Your task to perform on an android device: Open internet settings Image 0: 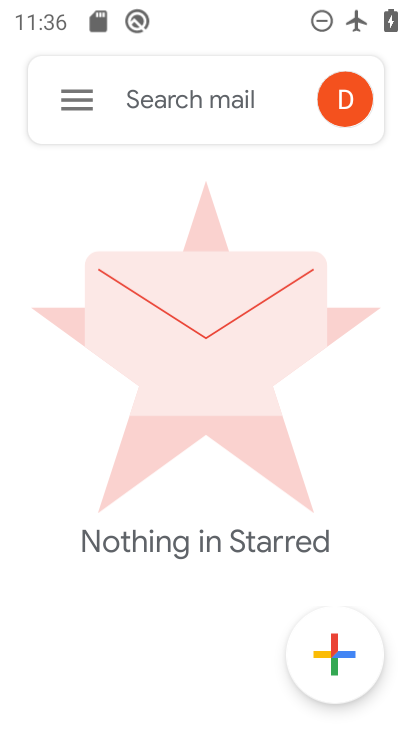
Step 0: press home button
Your task to perform on an android device: Open internet settings Image 1: 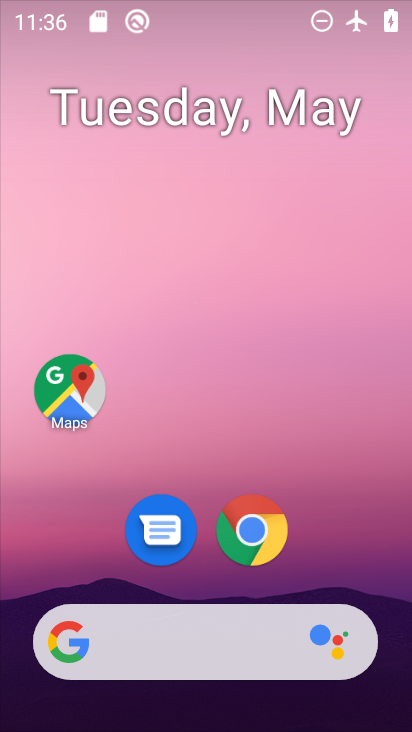
Step 1: drag from (316, 564) to (230, 122)
Your task to perform on an android device: Open internet settings Image 2: 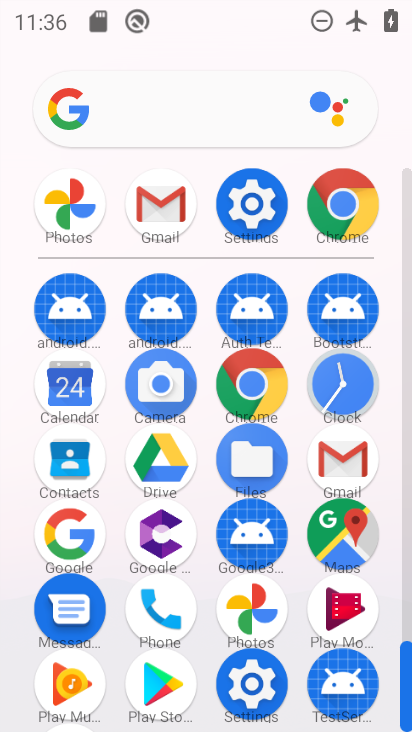
Step 2: click (238, 206)
Your task to perform on an android device: Open internet settings Image 3: 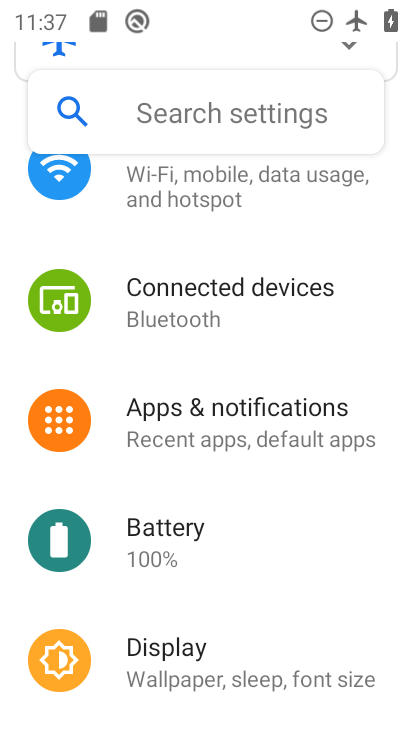
Step 3: drag from (237, 218) to (283, 621)
Your task to perform on an android device: Open internet settings Image 4: 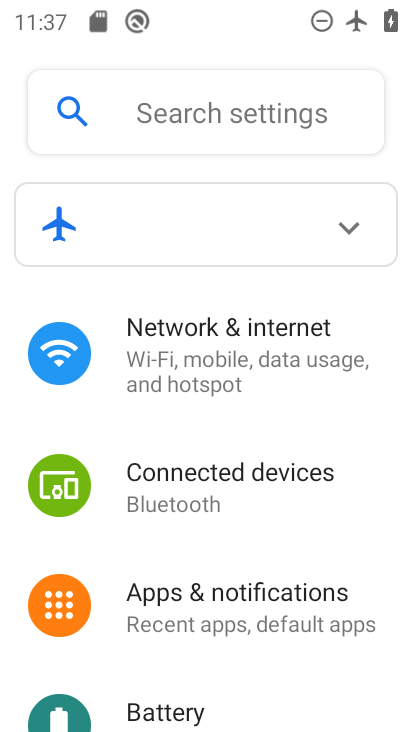
Step 4: click (215, 343)
Your task to perform on an android device: Open internet settings Image 5: 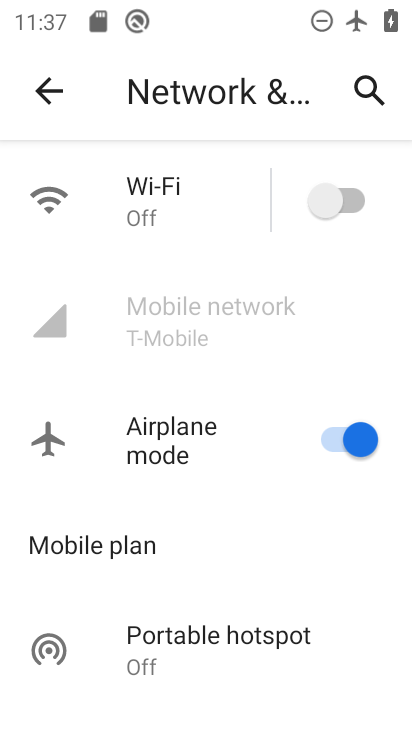
Step 5: task complete